Your task to perform on an android device: What's on my calendar tomorrow? Image 0: 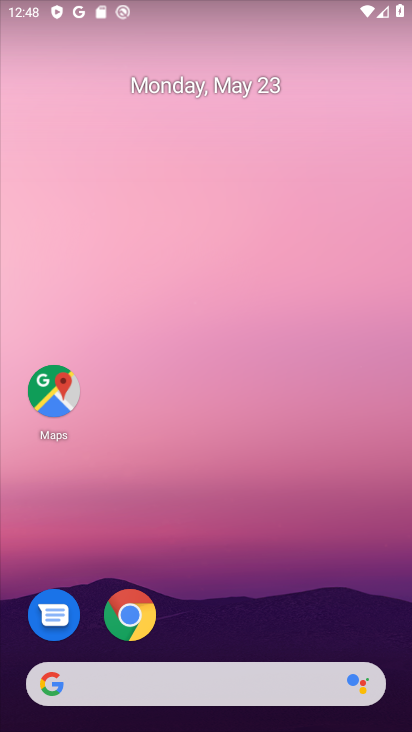
Step 0: drag from (206, 642) to (308, 9)
Your task to perform on an android device: What's on my calendar tomorrow? Image 1: 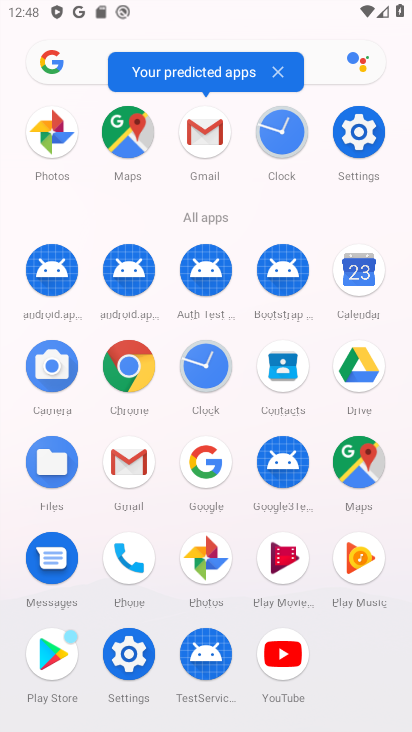
Step 1: click (360, 281)
Your task to perform on an android device: What's on my calendar tomorrow? Image 2: 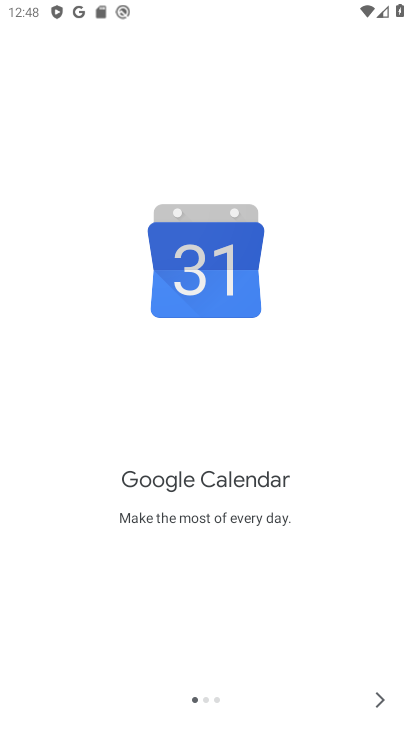
Step 2: click (375, 695)
Your task to perform on an android device: What's on my calendar tomorrow? Image 3: 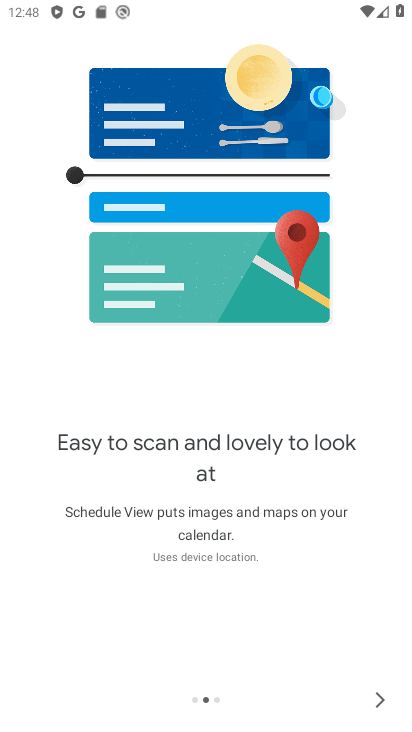
Step 3: click (375, 695)
Your task to perform on an android device: What's on my calendar tomorrow? Image 4: 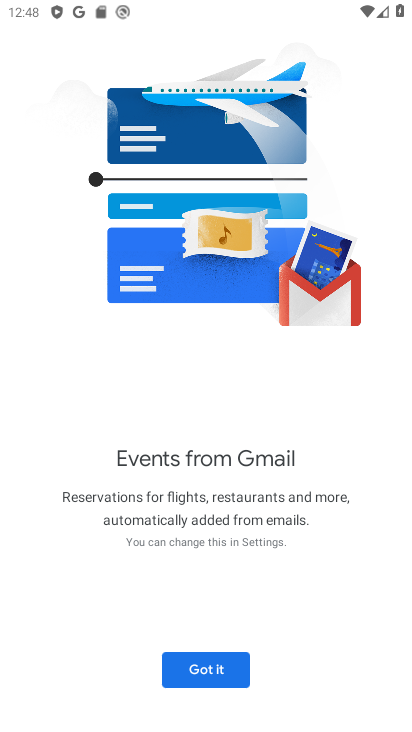
Step 4: click (188, 670)
Your task to perform on an android device: What's on my calendar tomorrow? Image 5: 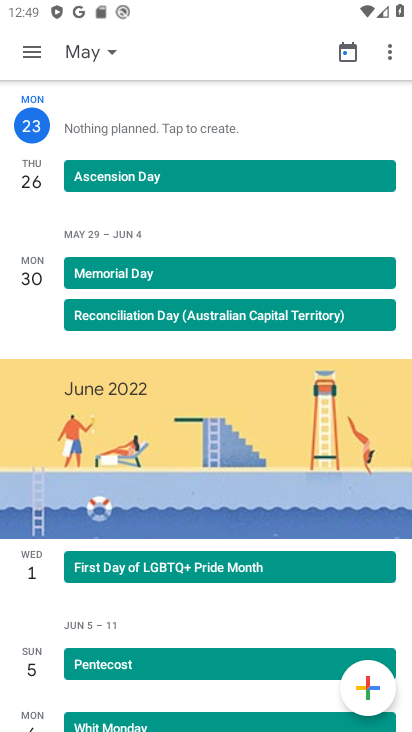
Step 5: click (29, 183)
Your task to perform on an android device: What's on my calendar tomorrow? Image 6: 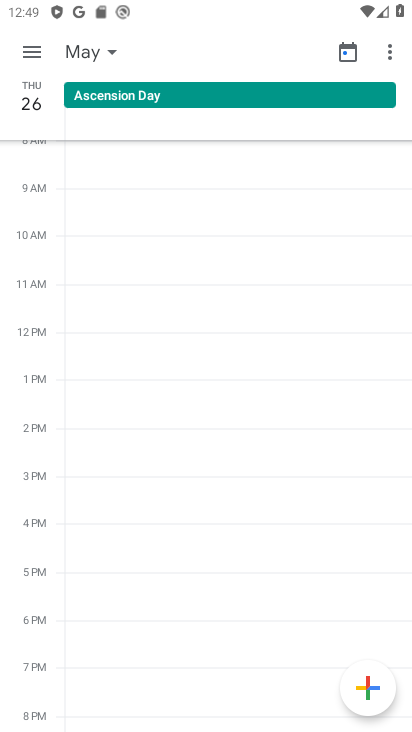
Step 6: task complete